Your task to perform on an android device: choose inbox layout in the gmail app Image 0: 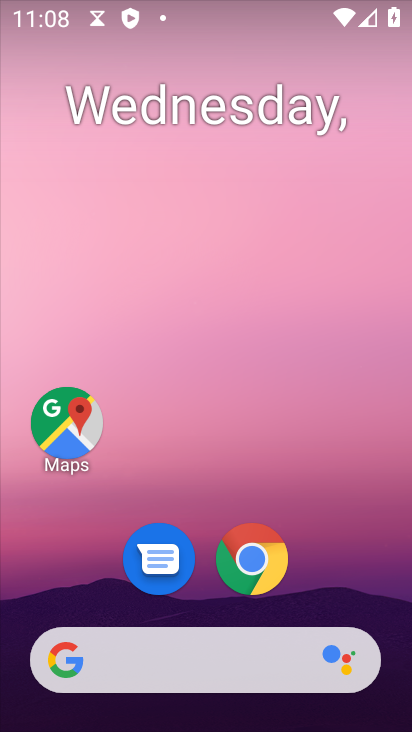
Step 0: drag from (355, 593) to (302, 234)
Your task to perform on an android device: choose inbox layout in the gmail app Image 1: 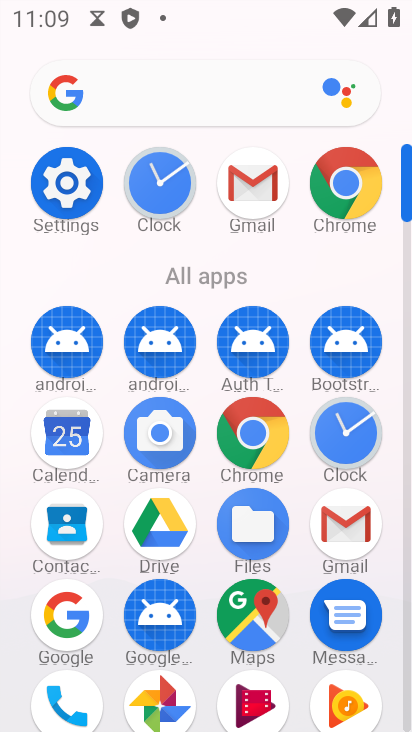
Step 1: click (262, 190)
Your task to perform on an android device: choose inbox layout in the gmail app Image 2: 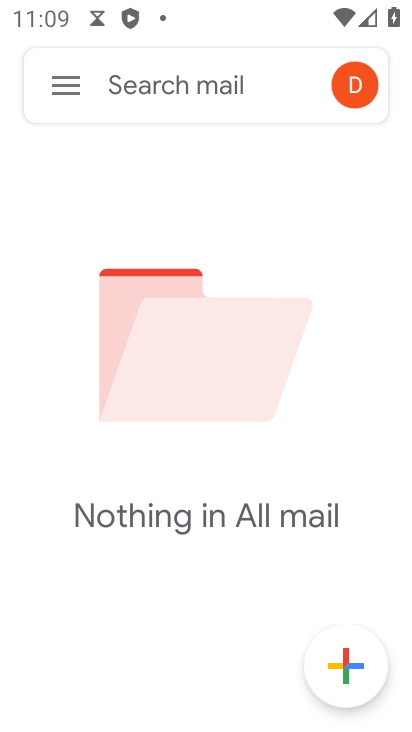
Step 2: click (81, 87)
Your task to perform on an android device: choose inbox layout in the gmail app Image 3: 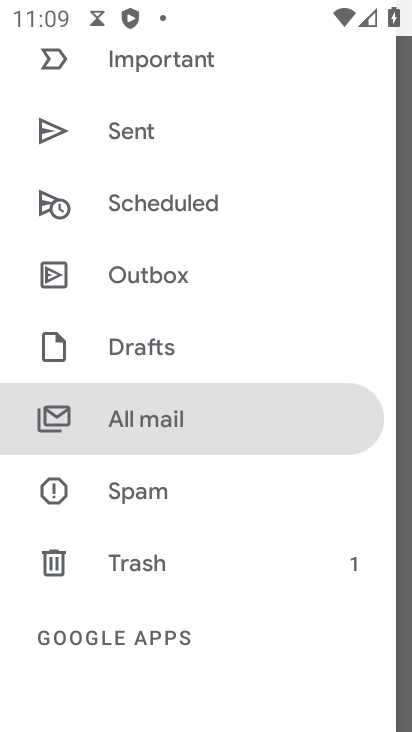
Step 3: drag from (152, 565) to (164, 275)
Your task to perform on an android device: choose inbox layout in the gmail app Image 4: 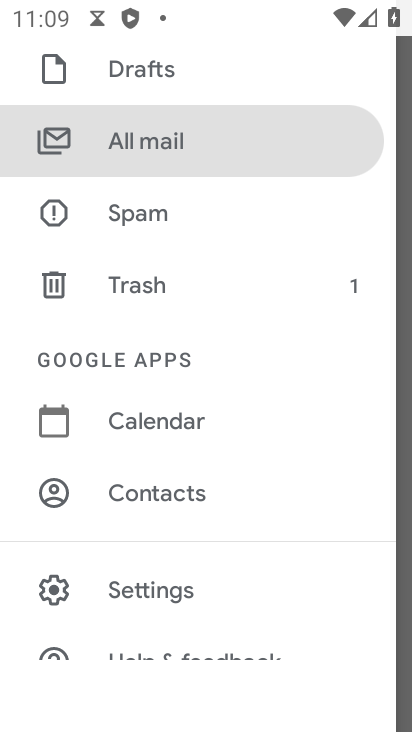
Step 4: click (161, 601)
Your task to perform on an android device: choose inbox layout in the gmail app Image 5: 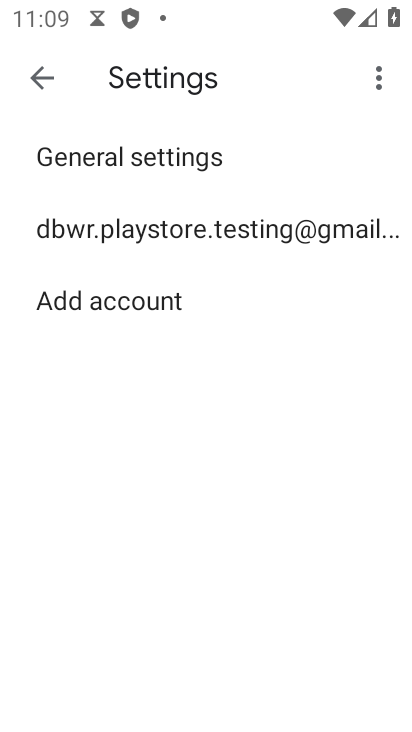
Step 5: click (238, 224)
Your task to perform on an android device: choose inbox layout in the gmail app Image 6: 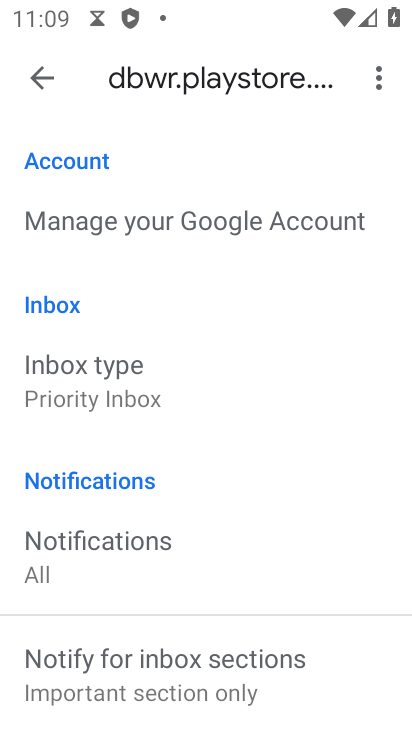
Step 6: click (211, 380)
Your task to perform on an android device: choose inbox layout in the gmail app Image 7: 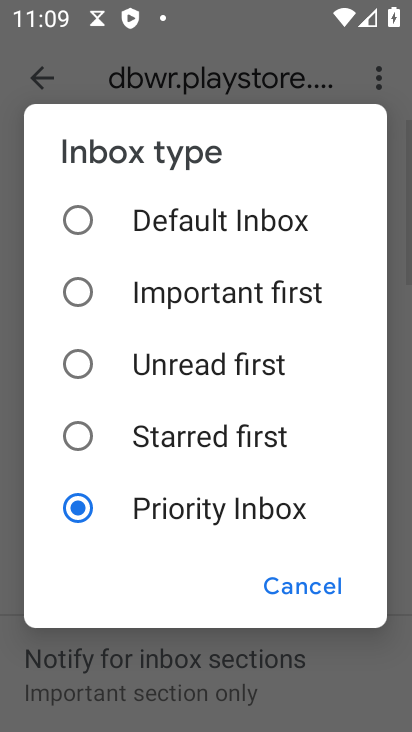
Step 7: click (219, 300)
Your task to perform on an android device: choose inbox layout in the gmail app Image 8: 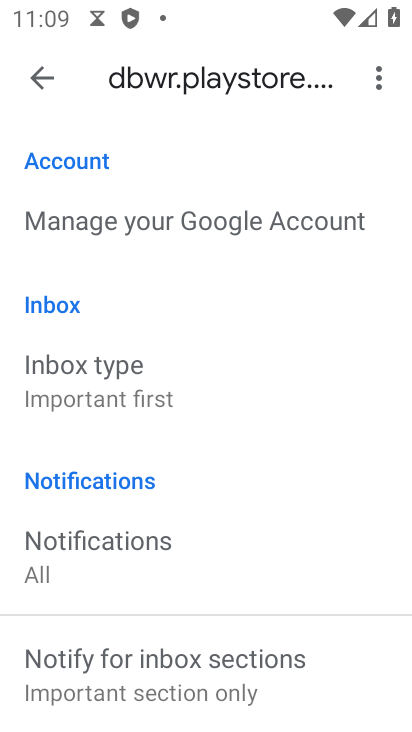
Step 8: task complete